Your task to perform on an android device: turn off location history Image 0: 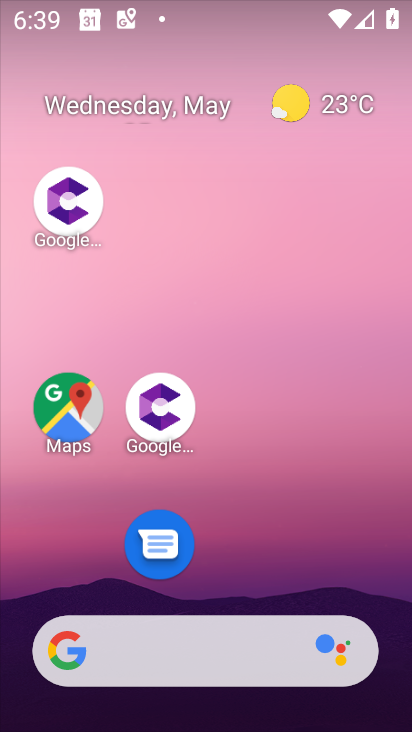
Step 0: click (328, 518)
Your task to perform on an android device: turn off location history Image 1: 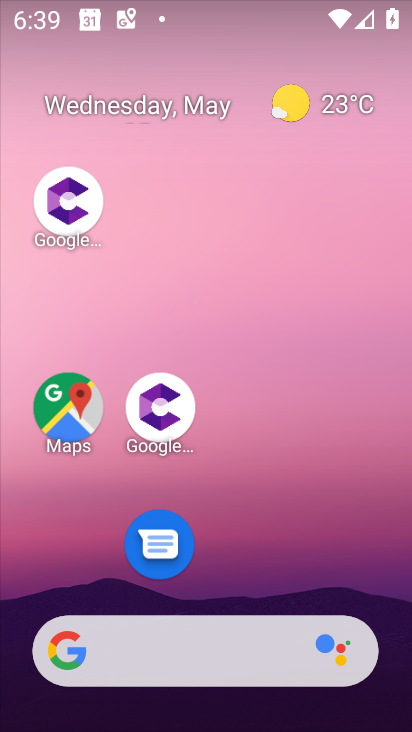
Step 1: click (58, 426)
Your task to perform on an android device: turn off location history Image 2: 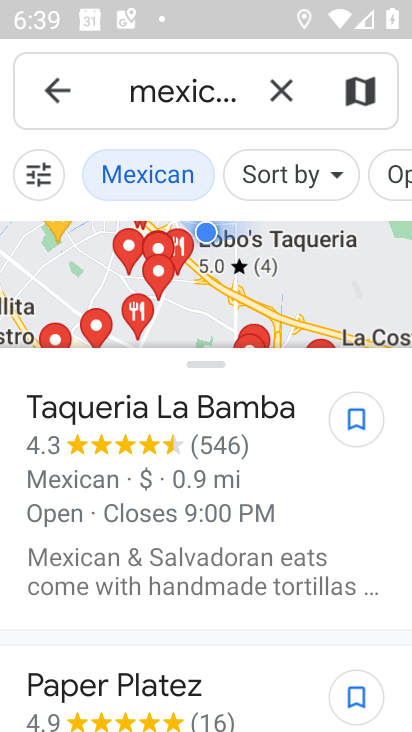
Step 2: click (46, 83)
Your task to perform on an android device: turn off location history Image 3: 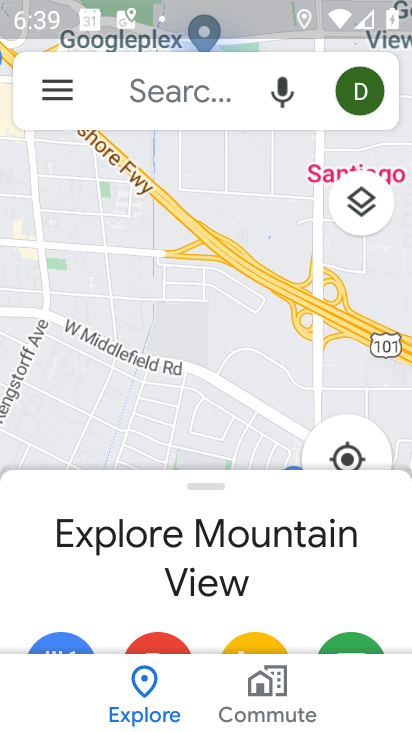
Step 3: click (58, 85)
Your task to perform on an android device: turn off location history Image 4: 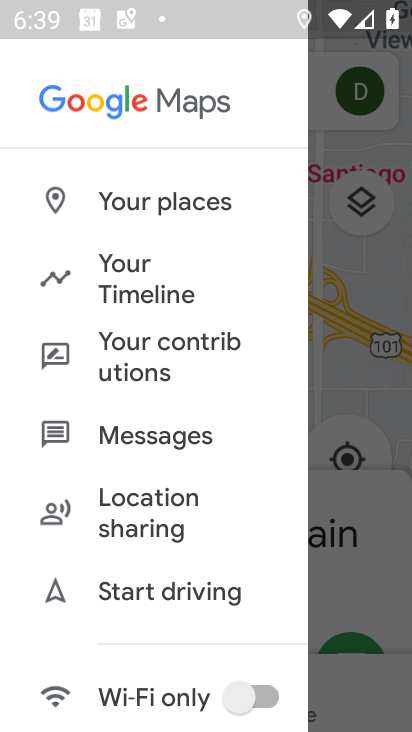
Step 4: click (133, 259)
Your task to perform on an android device: turn off location history Image 5: 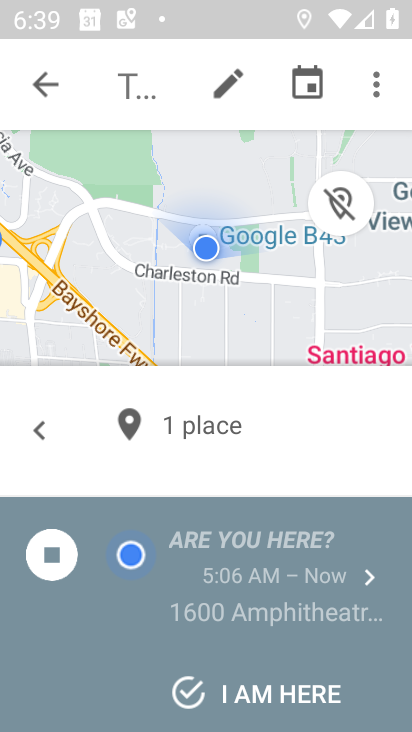
Step 5: click (378, 78)
Your task to perform on an android device: turn off location history Image 6: 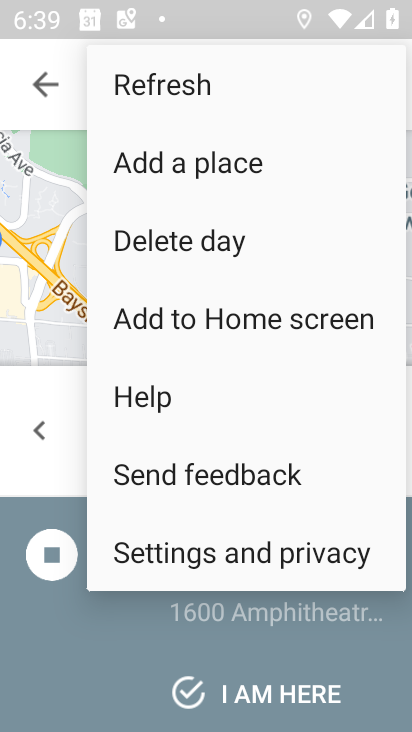
Step 6: click (250, 550)
Your task to perform on an android device: turn off location history Image 7: 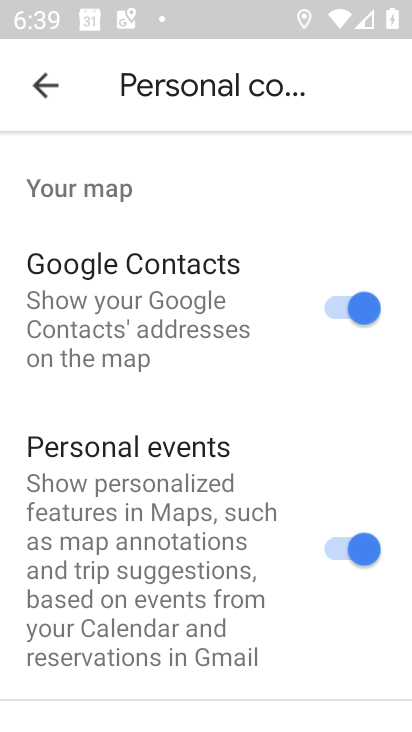
Step 7: drag from (304, 598) to (313, 156)
Your task to perform on an android device: turn off location history Image 8: 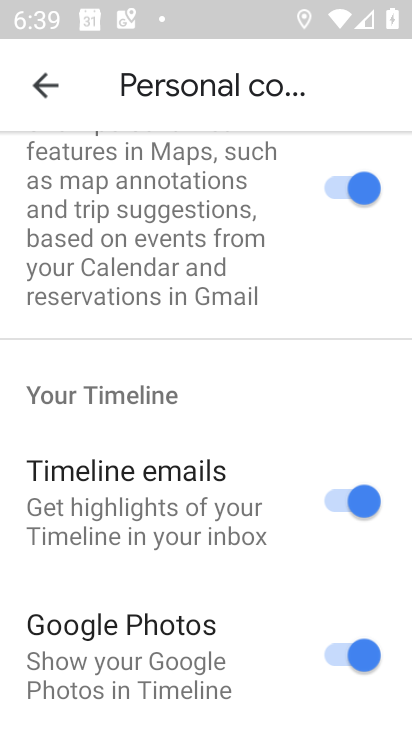
Step 8: drag from (236, 577) to (236, 119)
Your task to perform on an android device: turn off location history Image 9: 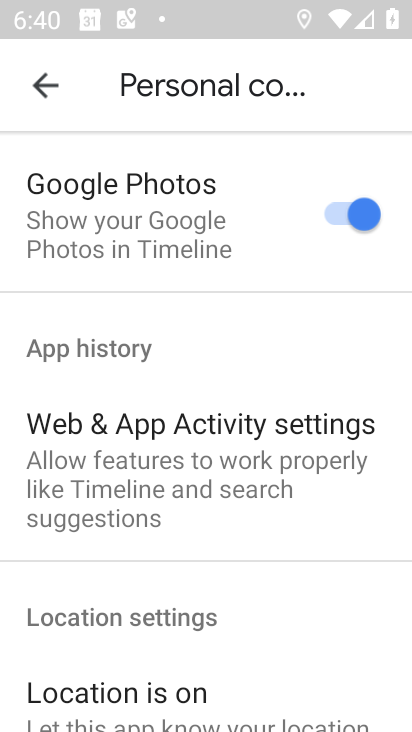
Step 9: drag from (205, 542) to (195, 291)
Your task to perform on an android device: turn off location history Image 10: 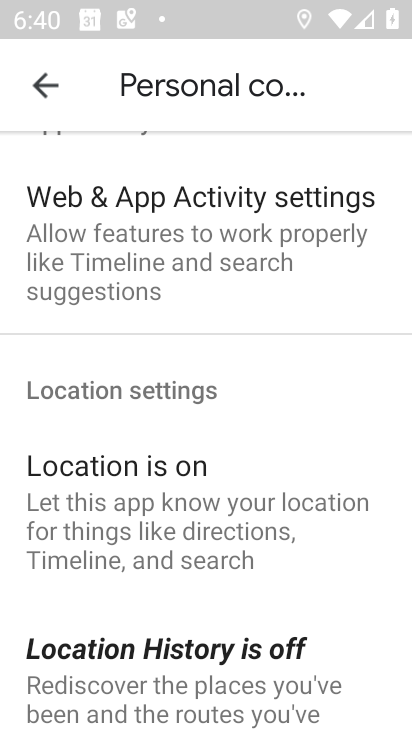
Step 10: click (159, 642)
Your task to perform on an android device: turn off location history Image 11: 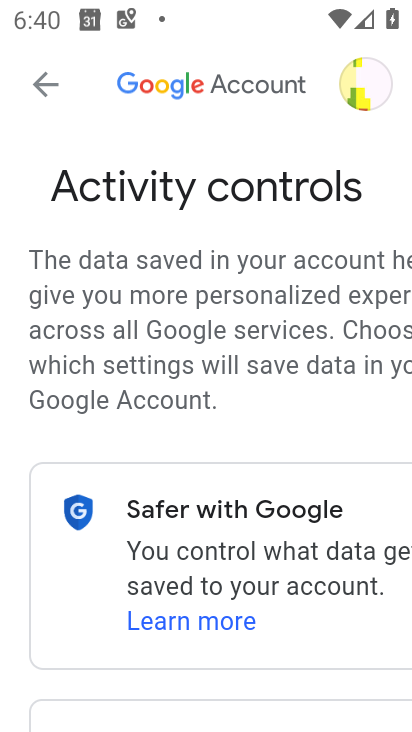
Step 11: task complete